Your task to perform on an android device: toggle location history Image 0: 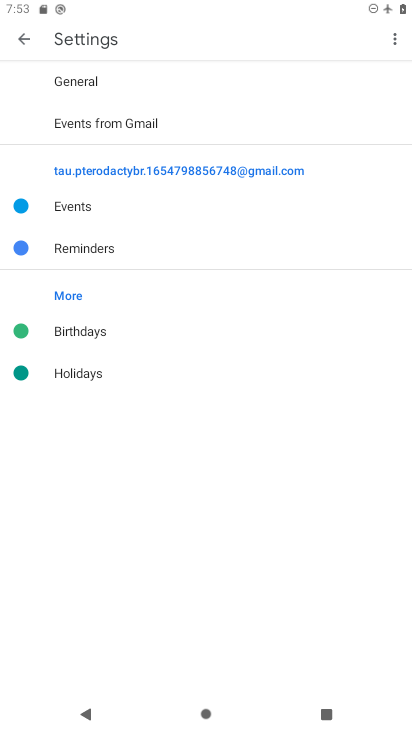
Step 0: press home button
Your task to perform on an android device: toggle location history Image 1: 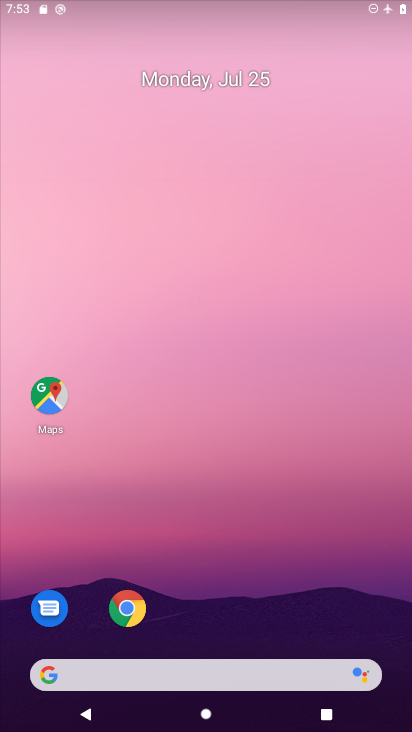
Step 1: drag from (275, 612) to (189, 41)
Your task to perform on an android device: toggle location history Image 2: 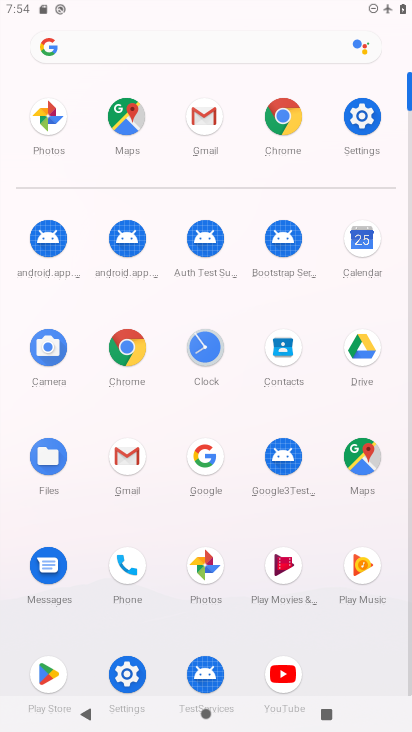
Step 2: click (365, 112)
Your task to perform on an android device: toggle location history Image 3: 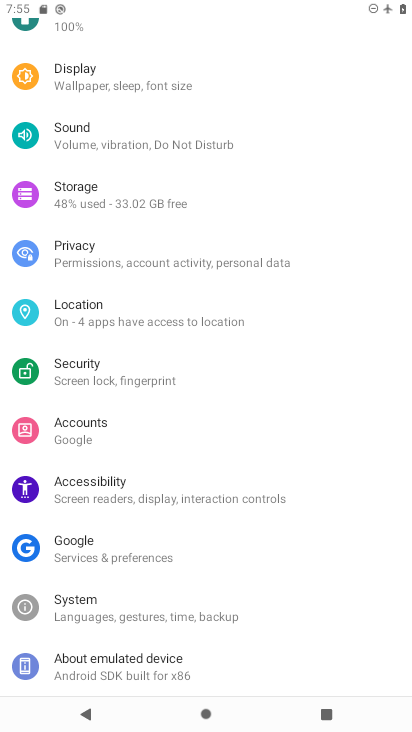
Step 3: click (166, 320)
Your task to perform on an android device: toggle location history Image 4: 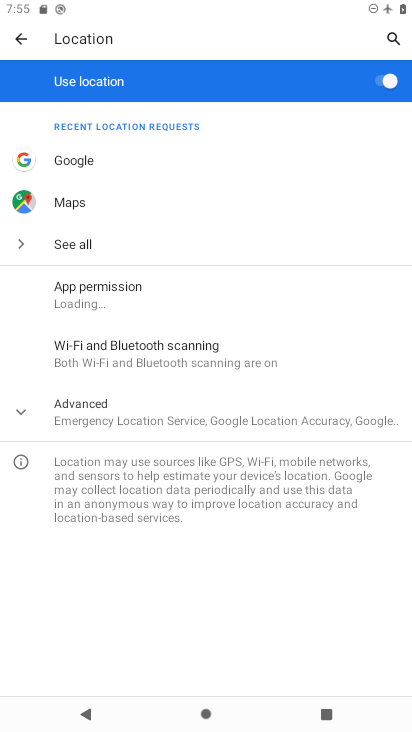
Step 4: click (111, 414)
Your task to perform on an android device: toggle location history Image 5: 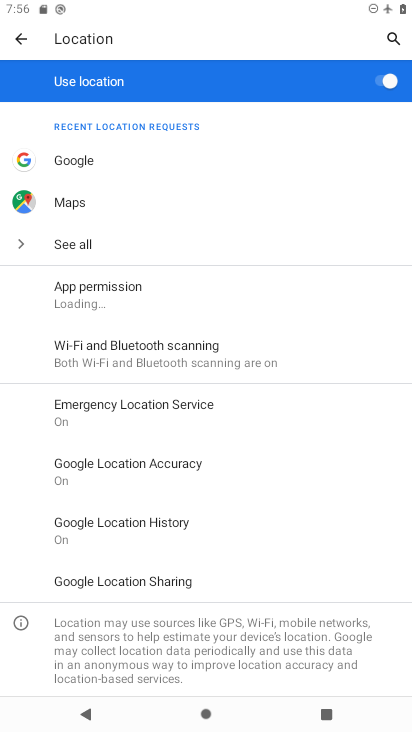
Step 5: click (136, 522)
Your task to perform on an android device: toggle location history Image 6: 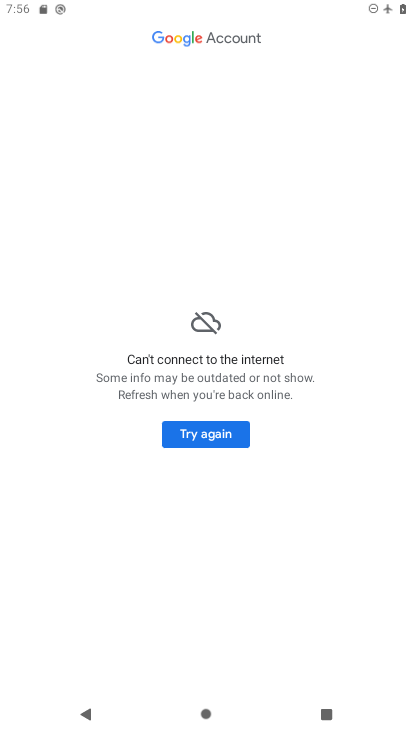
Step 6: task complete